Your task to perform on an android device: open sync settings in chrome Image 0: 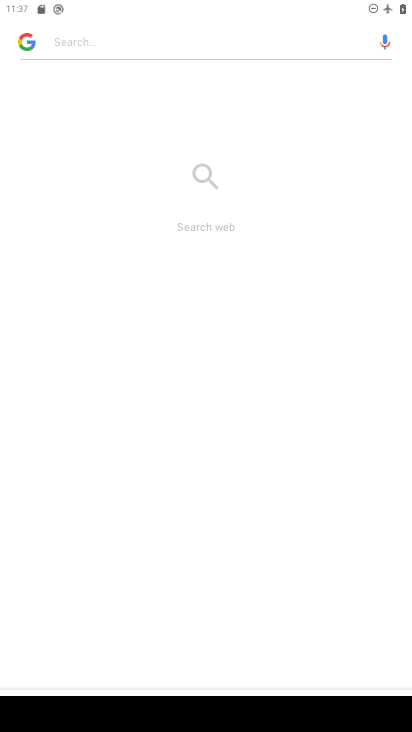
Step 0: press home button
Your task to perform on an android device: open sync settings in chrome Image 1: 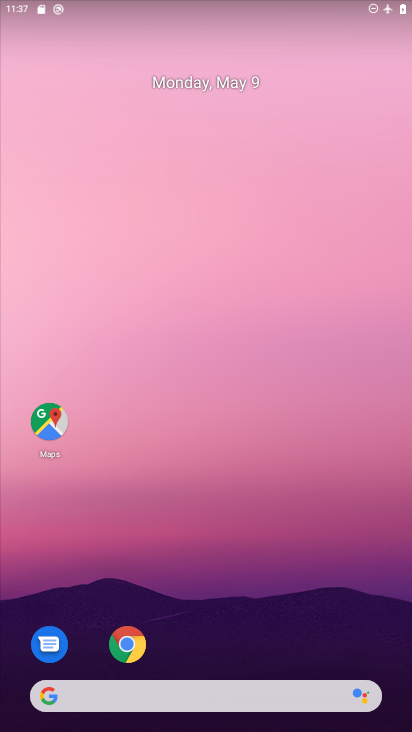
Step 1: click (140, 639)
Your task to perform on an android device: open sync settings in chrome Image 2: 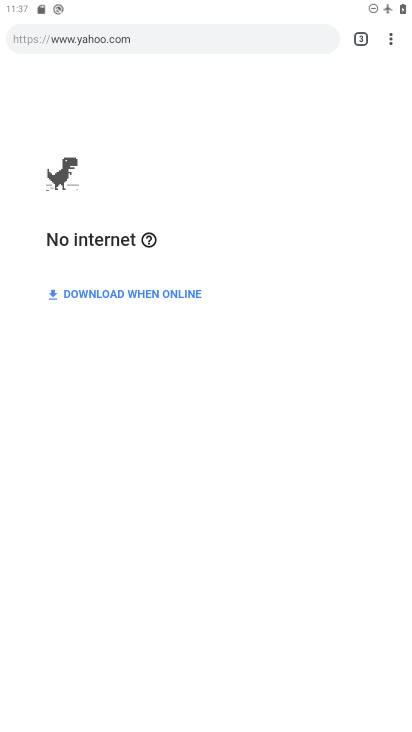
Step 2: drag from (392, 29) to (255, 432)
Your task to perform on an android device: open sync settings in chrome Image 3: 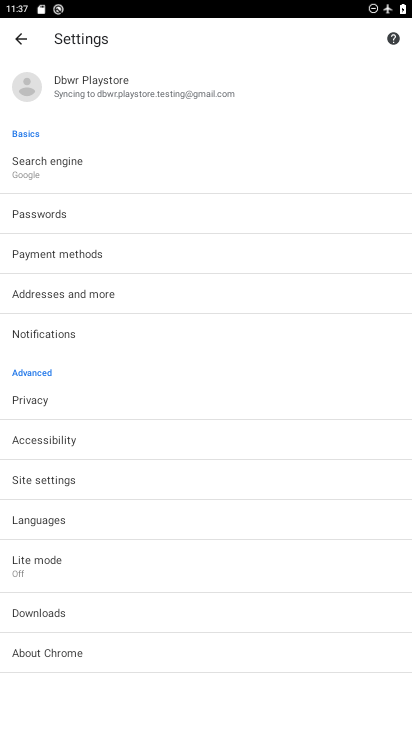
Step 3: click (132, 101)
Your task to perform on an android device: open sync settings in chrome Image 4: 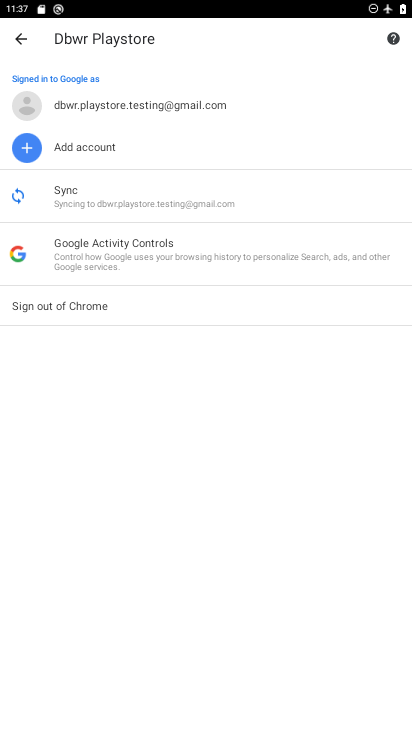
Step 4: click (100, 198)
Your task to perform on an android device: open sync settings in chrome Image 5: 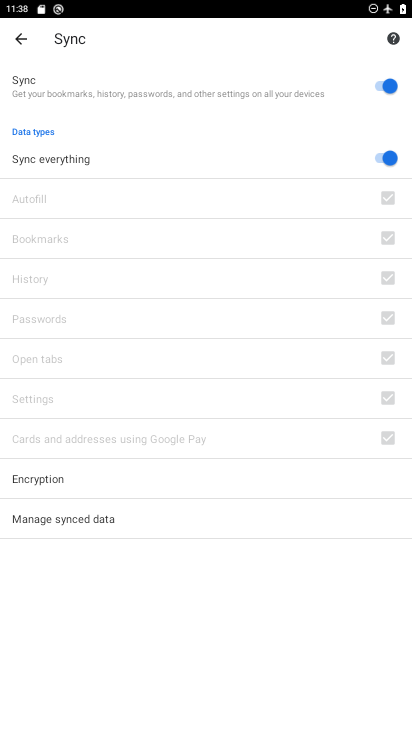
Step 5: task complete